Your task to perform on an android device: Open settings Image 0: 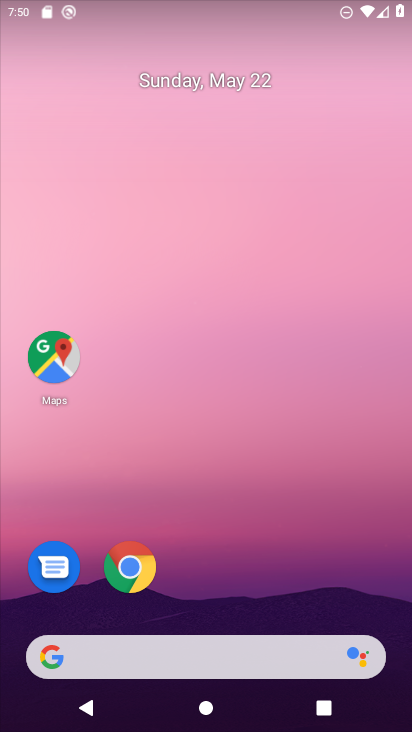
Step 0: drag from (175, 619) to (207, 198)
Your task to perform on an android device: Open settings Image 1: 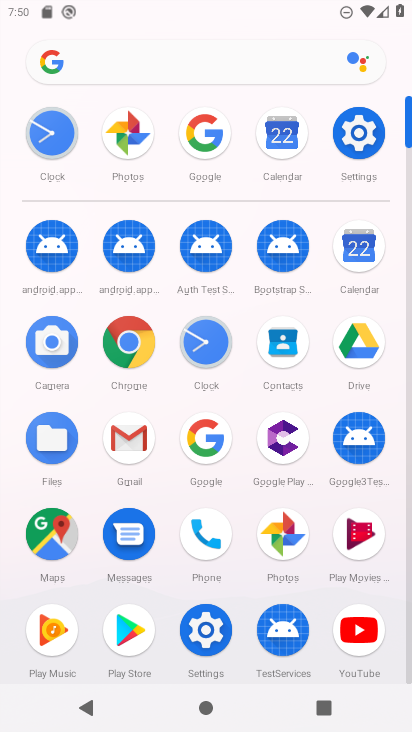
Step 1: click (355, 135)
Your task to perform on an android device: Open settings Image 2: 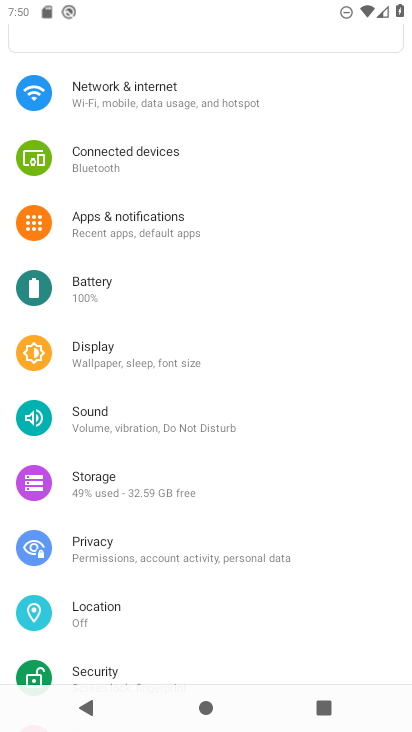
Step 2: task complete